Your task to perform on an android device: Show the shopping cart on costco. Search for "lg ultragear" on costco, select the first entry, add it to the cart, then select checkout. Image 0: 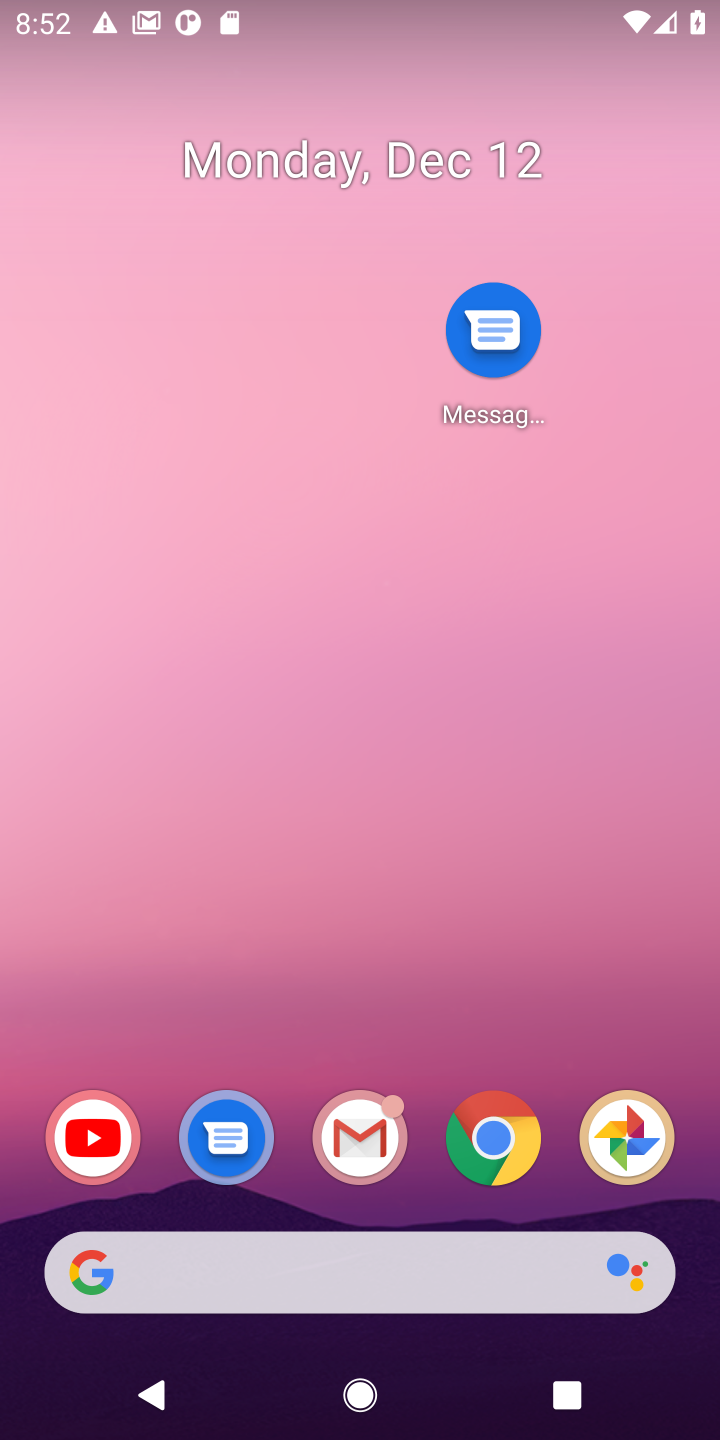
Step 0: drag from (361, 1255) to (396, 362)
Your task to perform on an android device: Show the shopping cart on costco. Search for "lg ultragear" on costco, select the first entry, add it to the cart, then select checkout. Image 1: 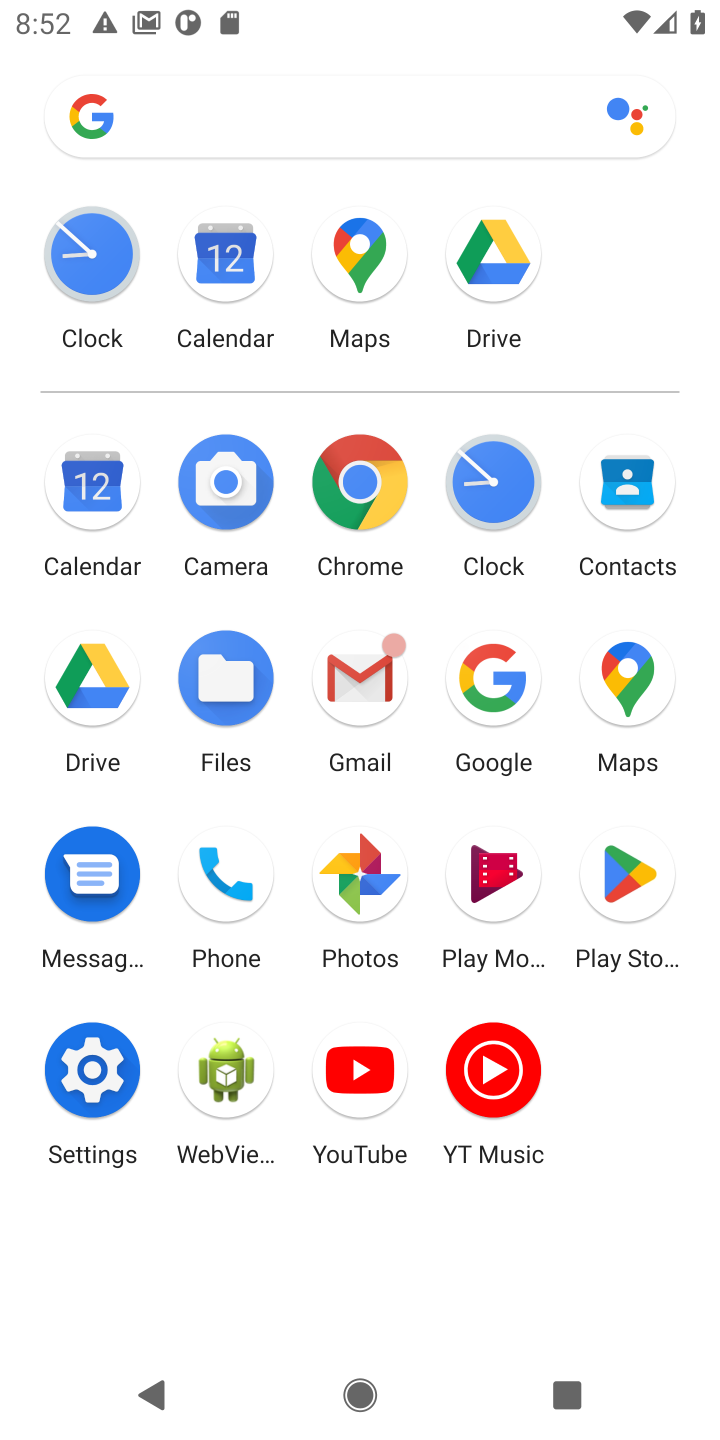
Step 1: click (487, 661)
Your task to perform on an android device: Show the shopping cart on costco. Search for "lg ultragear" on costco, select the first entry, add it to the cart, then select checkout. Image 2: 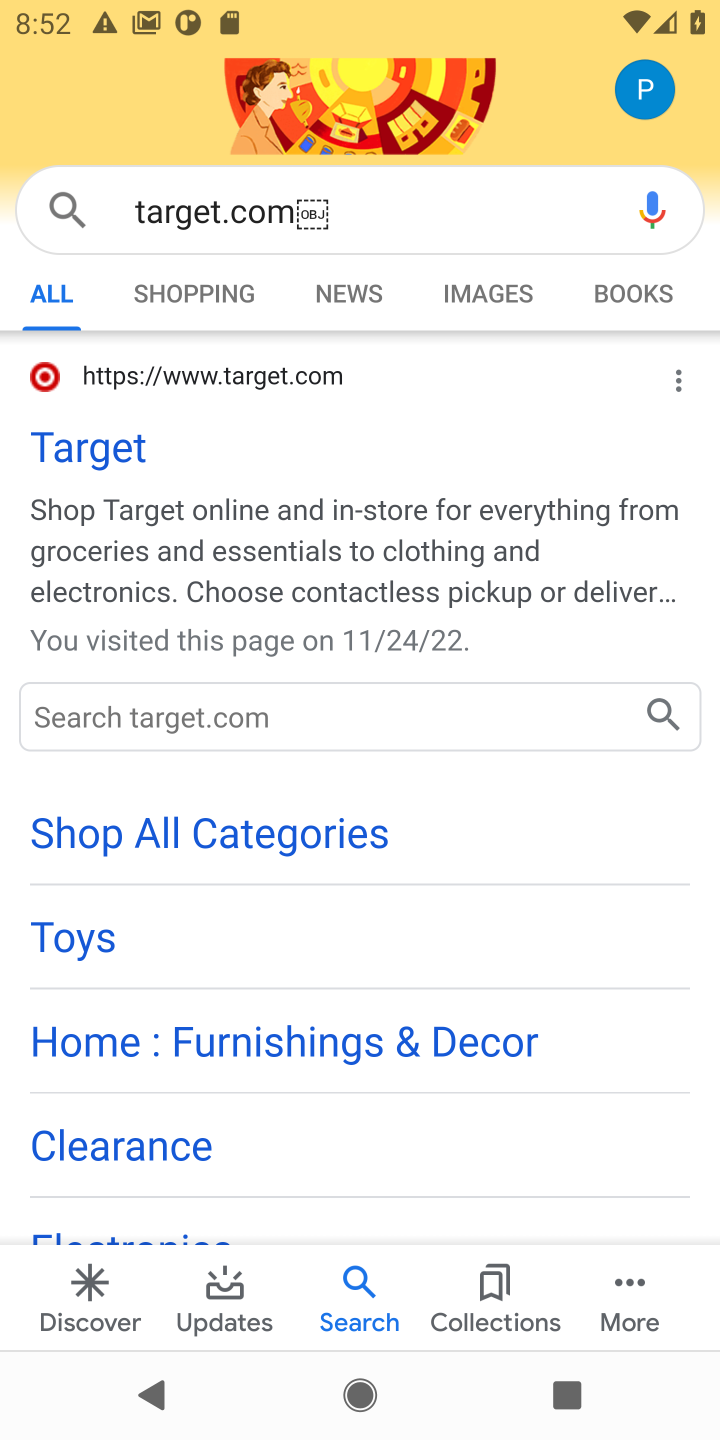
Step 2: click (182, 231)
Your task to perform on an android device: Show the shopping cart on costco. Search for "lg ultragear" on costco, select the first entry, add it to the cart, then select checkout. Image 3: 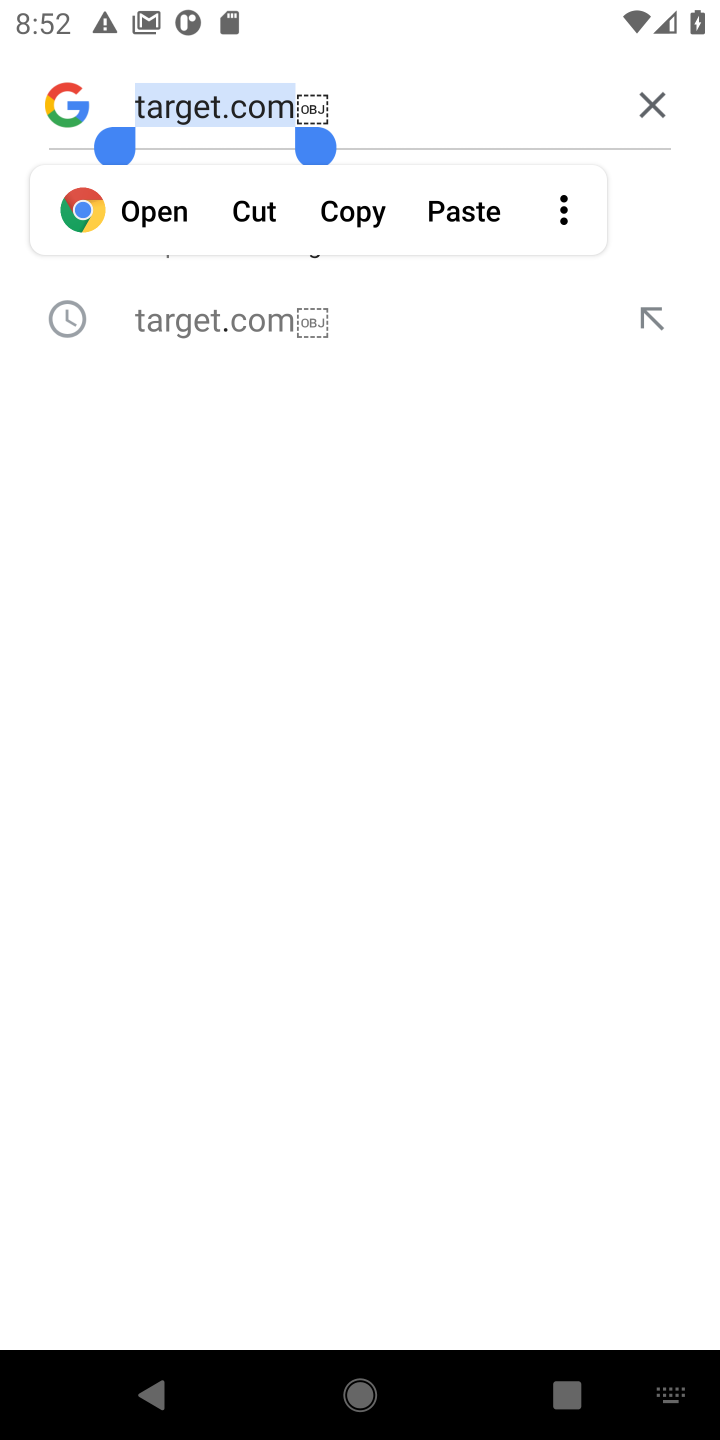
Step 3: click (650, 123)
Your task to perform on an android device: Show the shopping cart on costco. Search for "lg ultragear" on costco, select the first entry, add it to the cart, then select checkout. Image 4: 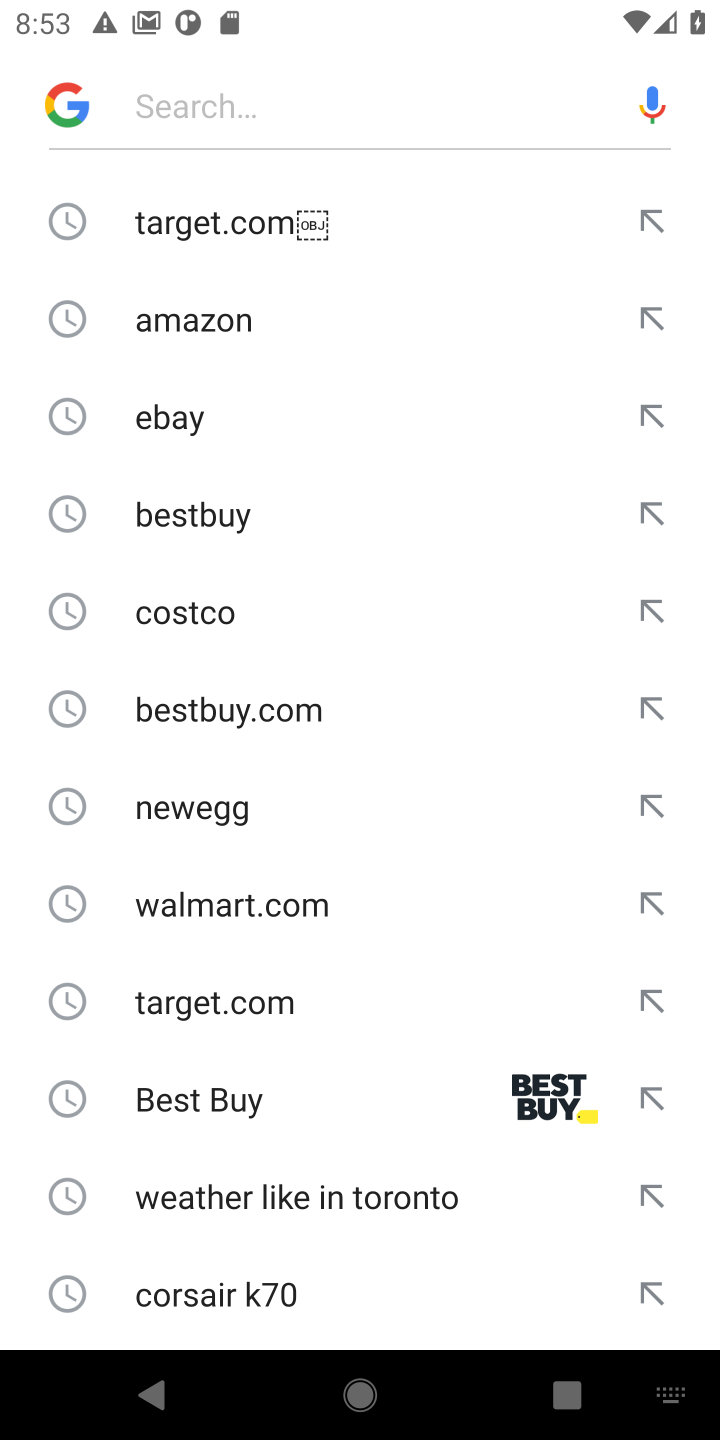
Step 4: click (226, 607)
Your task to perform on an android device: Show the shopping cart on costco. Search for "lg ultragear" on costco, select the first entry, add it to the cart, then select checkout. Image 5: 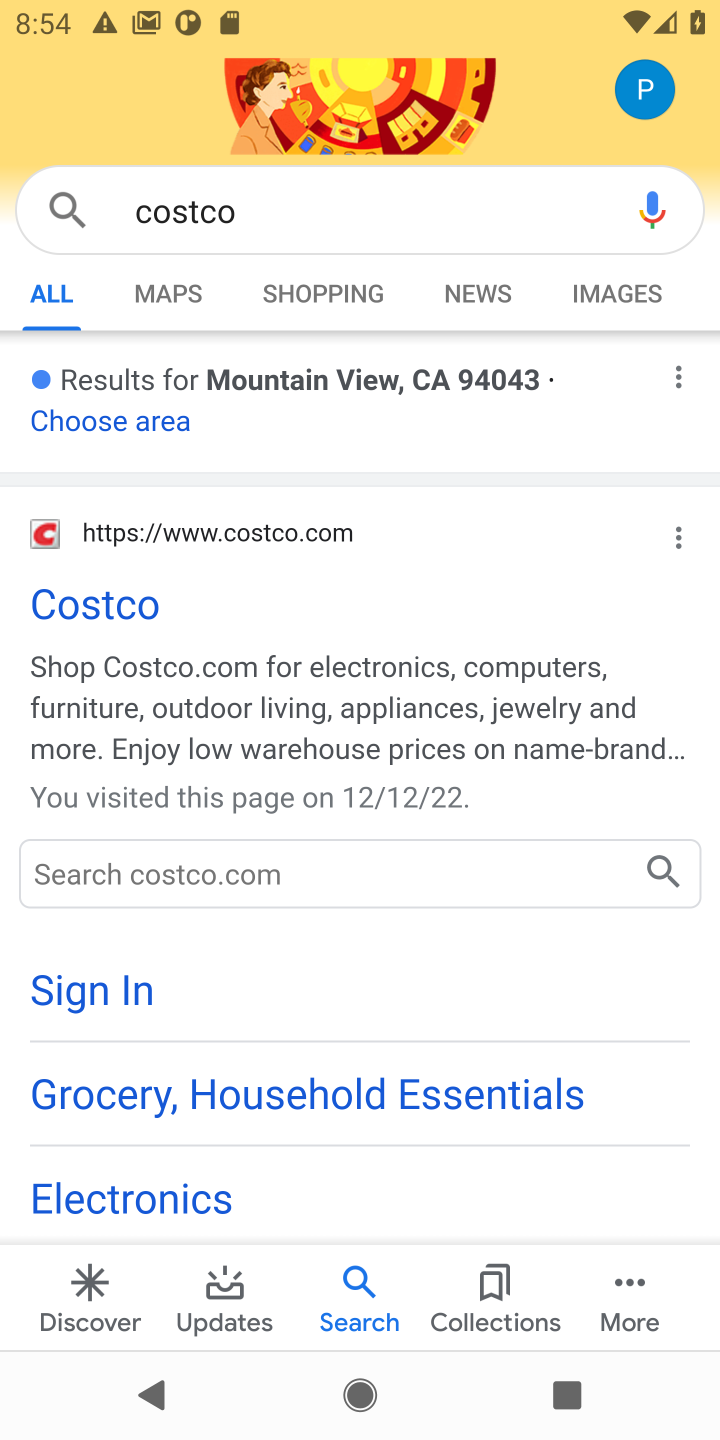
Step 5: click (114, 600)
Your task to perform on an android device: Show the shopping cart on costco. Search for "lg ultragear" on costco, select the first entry, add it to the cart, then select checkout. Image 6: 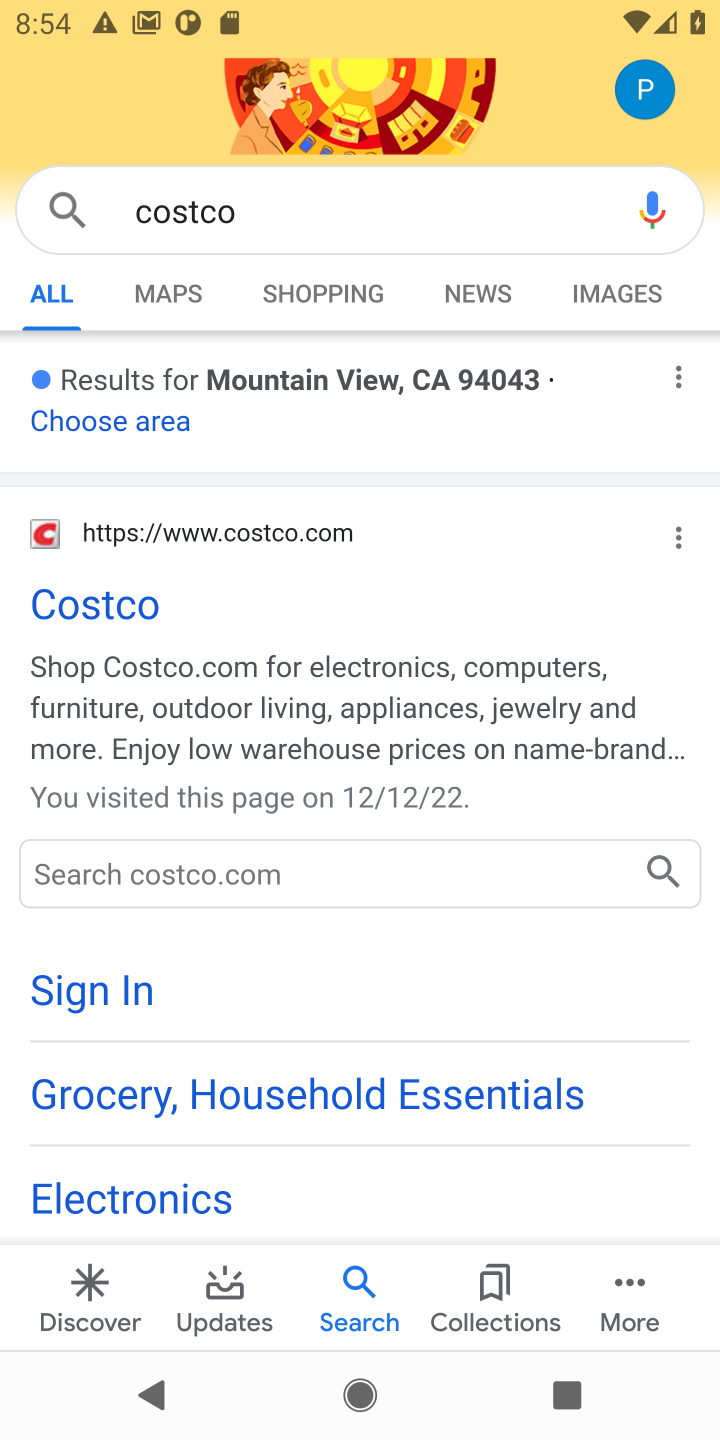
Step 6: click (77, 613)
Your task to perform on an android device: Show the shopping cart on costco. Search for "lg ultragear" on costco, select the first entry, add it to the cart, then select checkout. Image 7: 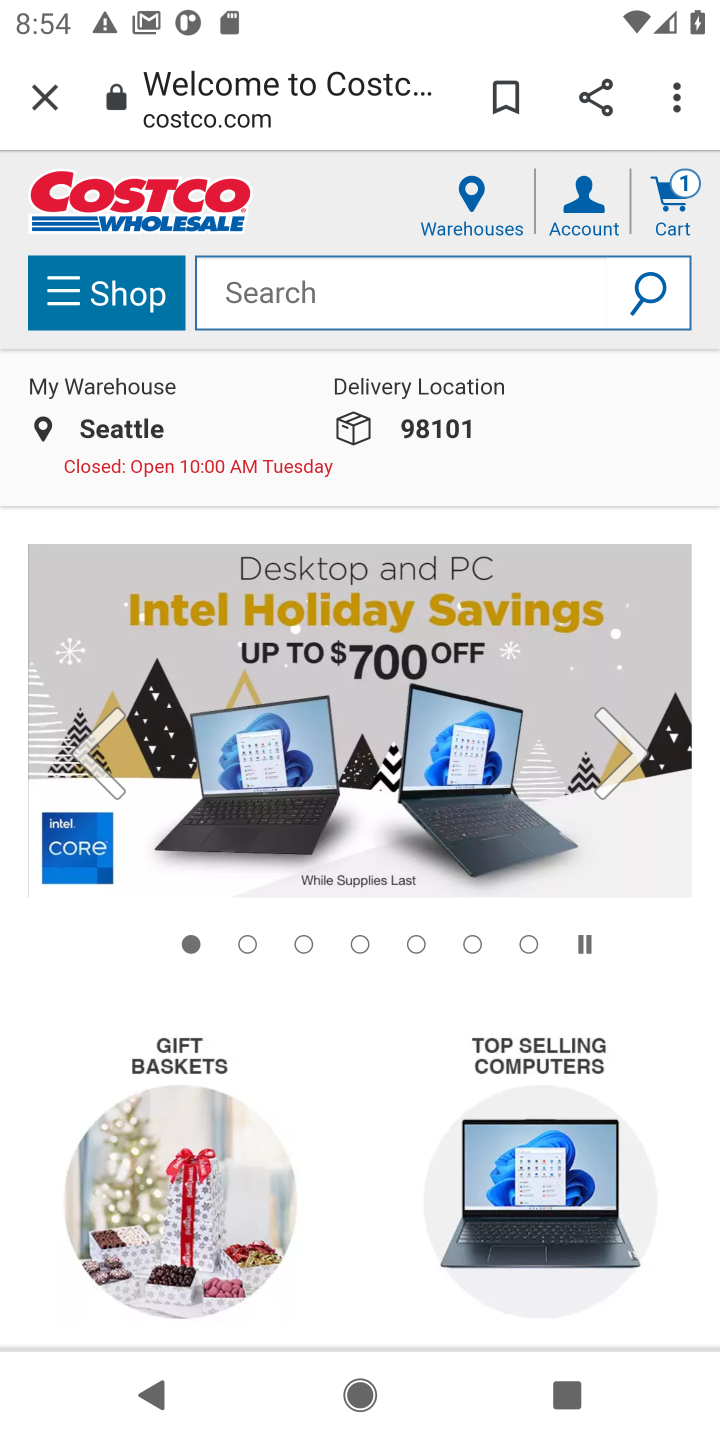
Step 7: click (399, 290)
Your task to perform on an android device: Show the shopping cart on costco. Search for "lg ultragear" on costco, select the first entry, add it to the cart, then select checkout. Image 8: 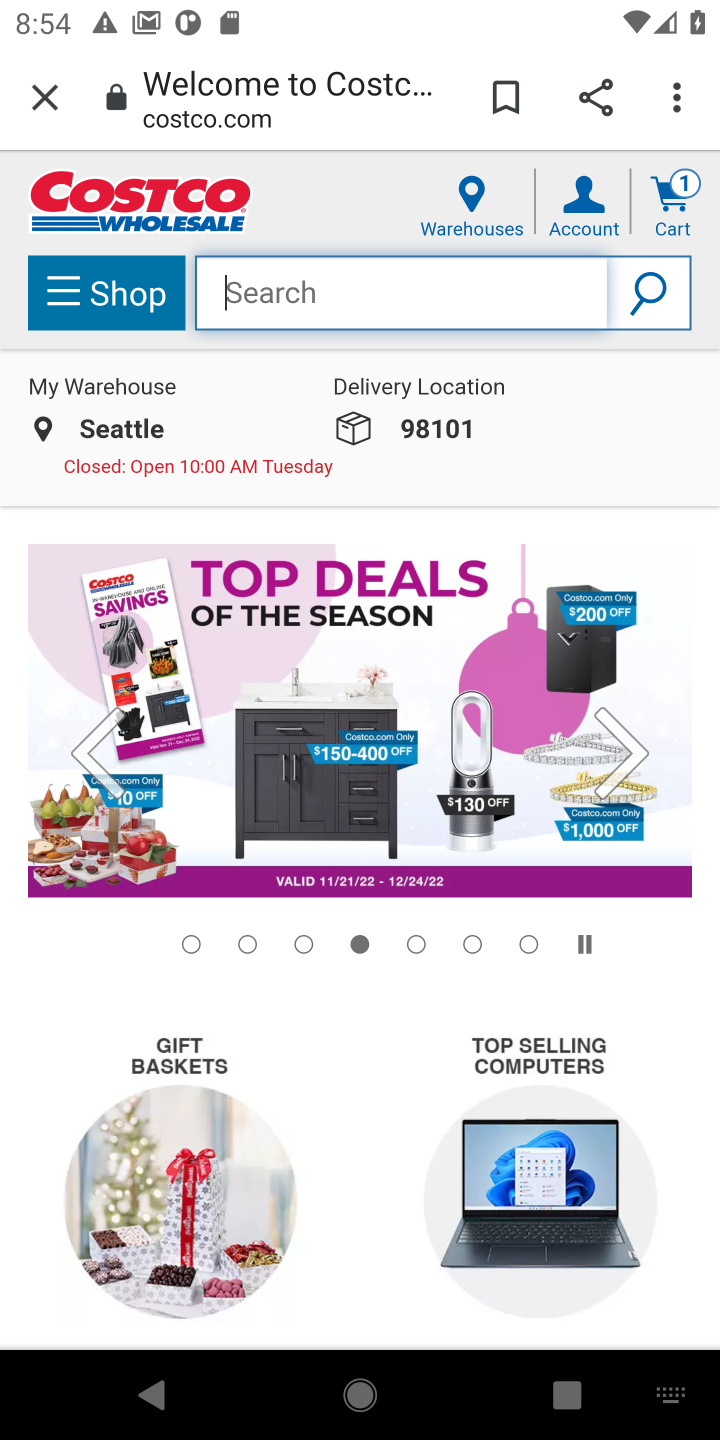
Step 8: type "lg ultragear"
Your task to perform on an android device: Show the shopping cart on costco. Search for "lg ultragear" on costco, select the first entry, add it to the cart, then select checkout. Image 9: 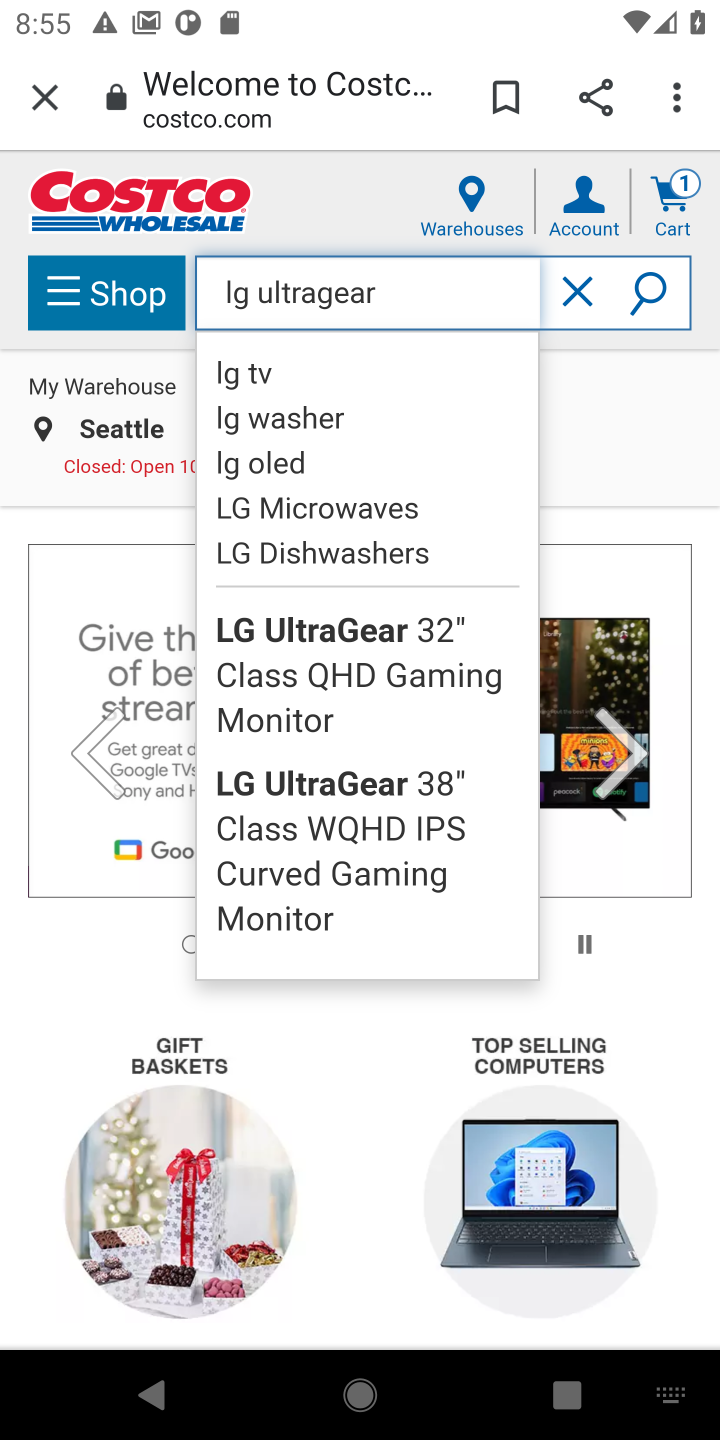
Step 9: click (642, 298)
Your task to perform on an android device: Show the shopping cart on costco. Search for "lg ultragear" on costco, select the first entry, add it to the cart, then select checkout. Image 10: 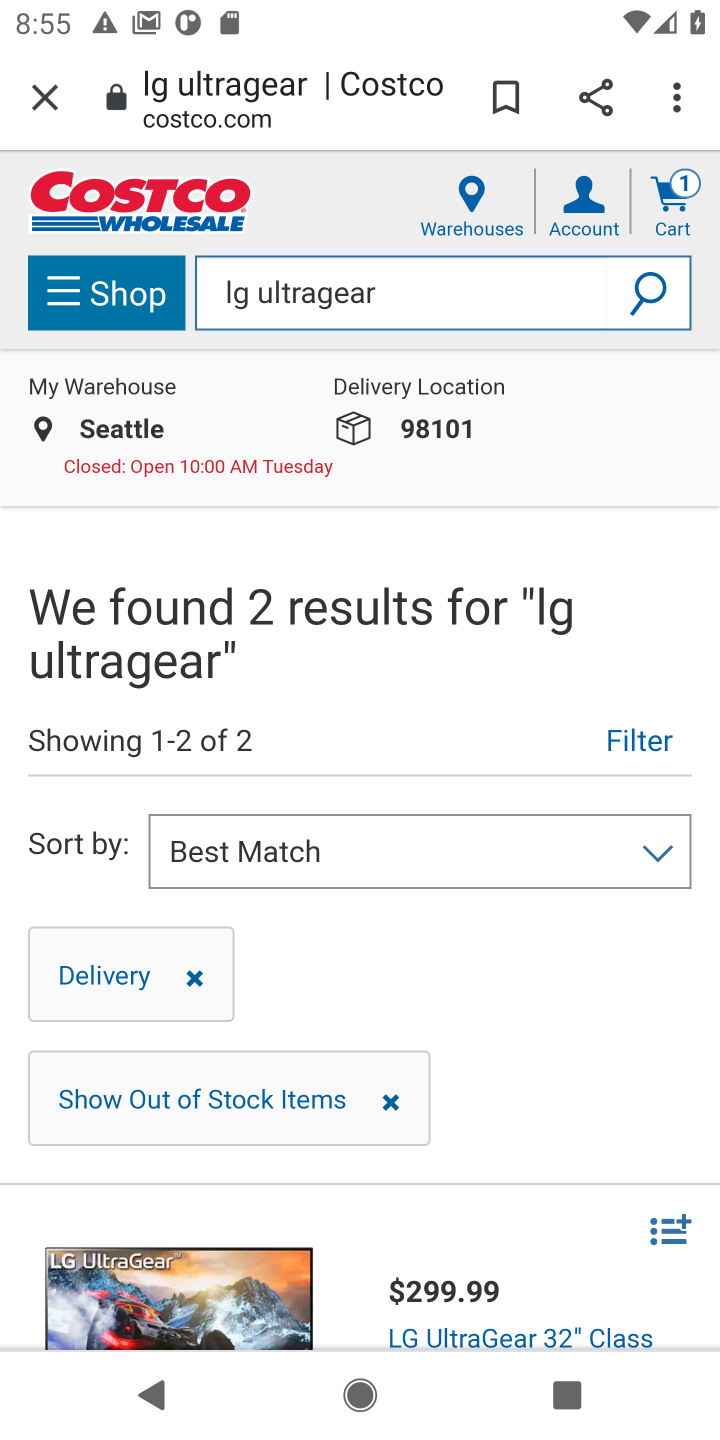
Step 10: drag from (429, 1100) to (381, 452)
Your task to perform on an android device: Show the shopping cart on costco. Search for "lg ultragear" on costco, select the first entry, add it to the cart, then select checkout. Image 11: 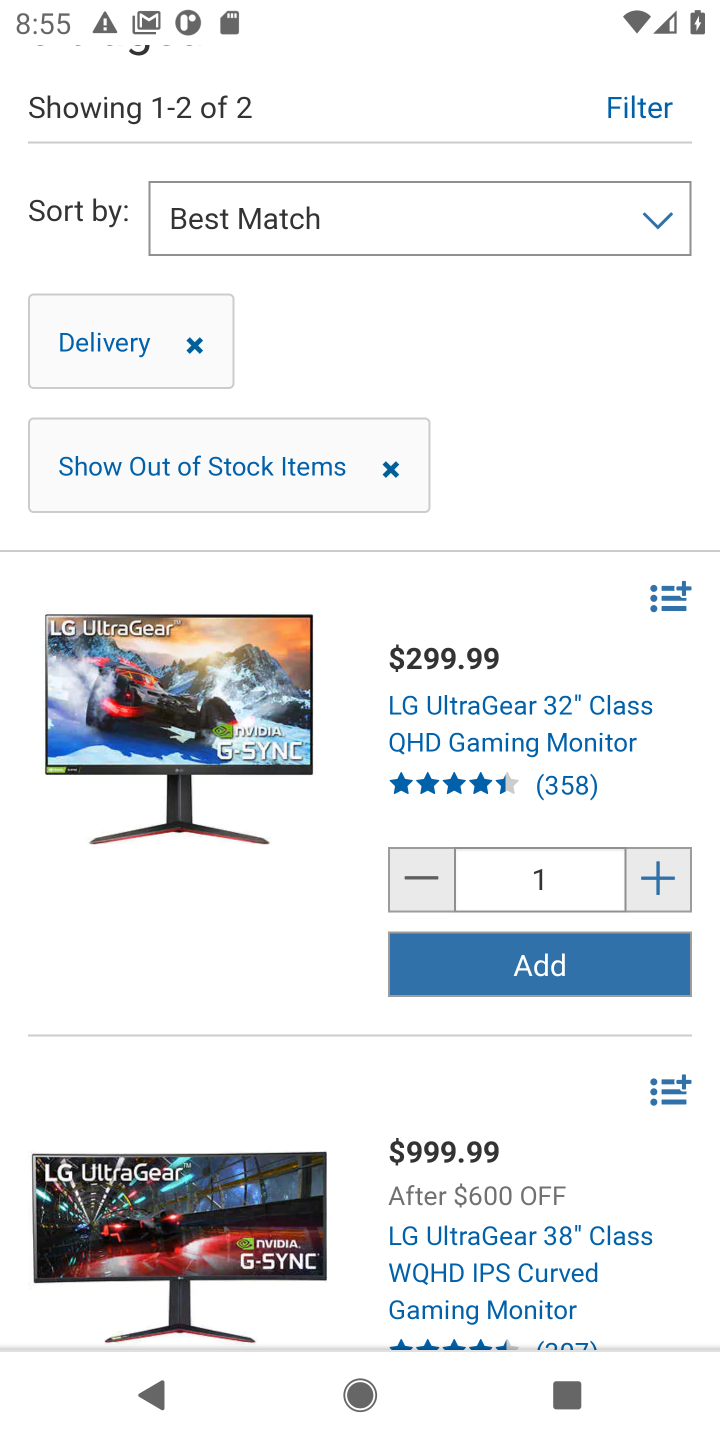
Step 11: click (517, 958)
Your task to perform on an android device: Show the shopping cart on costco. Search for "lg ultragear" on costco, select the first entry, add it to the cart, then select checkout. Image 12: 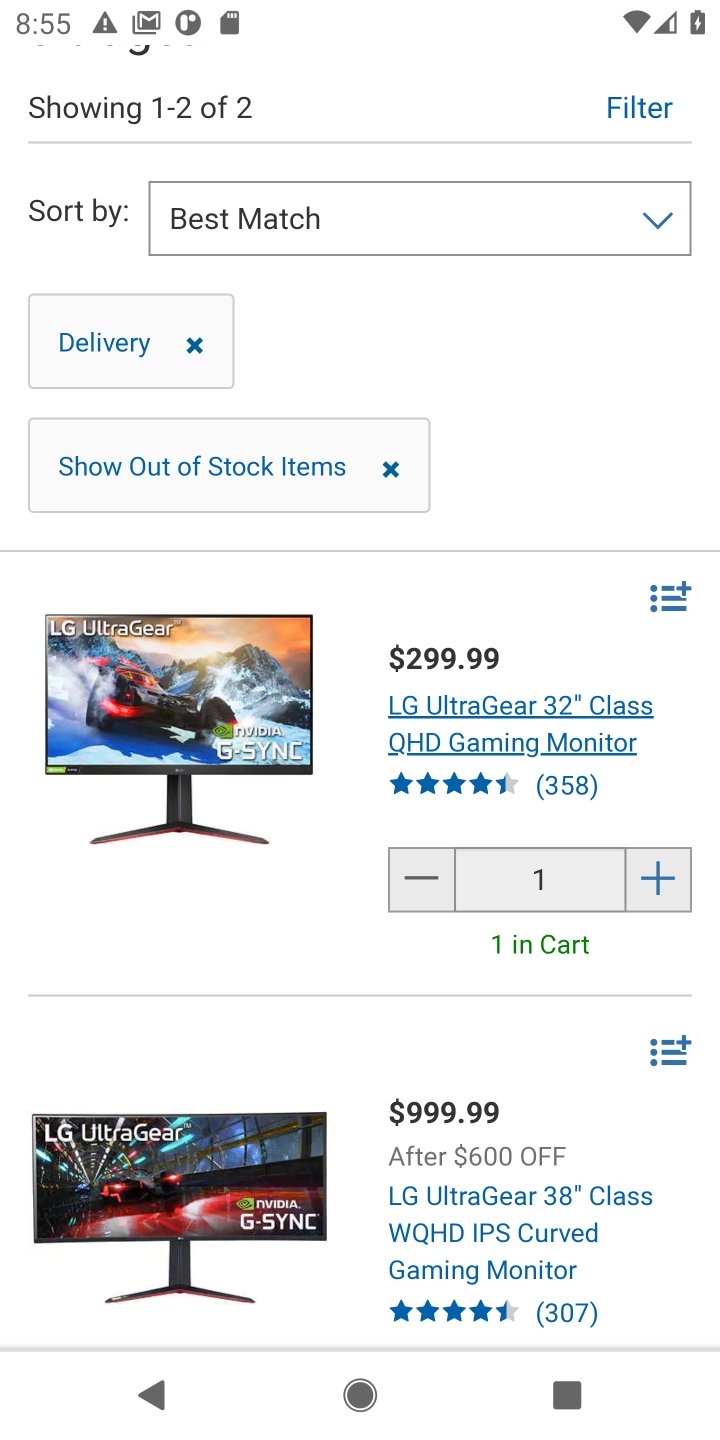
Step 12: drag from (498, 397) to (530, 1106)
Your task to perform on an android device: Show the shopping cart on costco. Search for "lg ultragear" on costco, select the first entry, add it to the cart, then select checkout. Image 13: 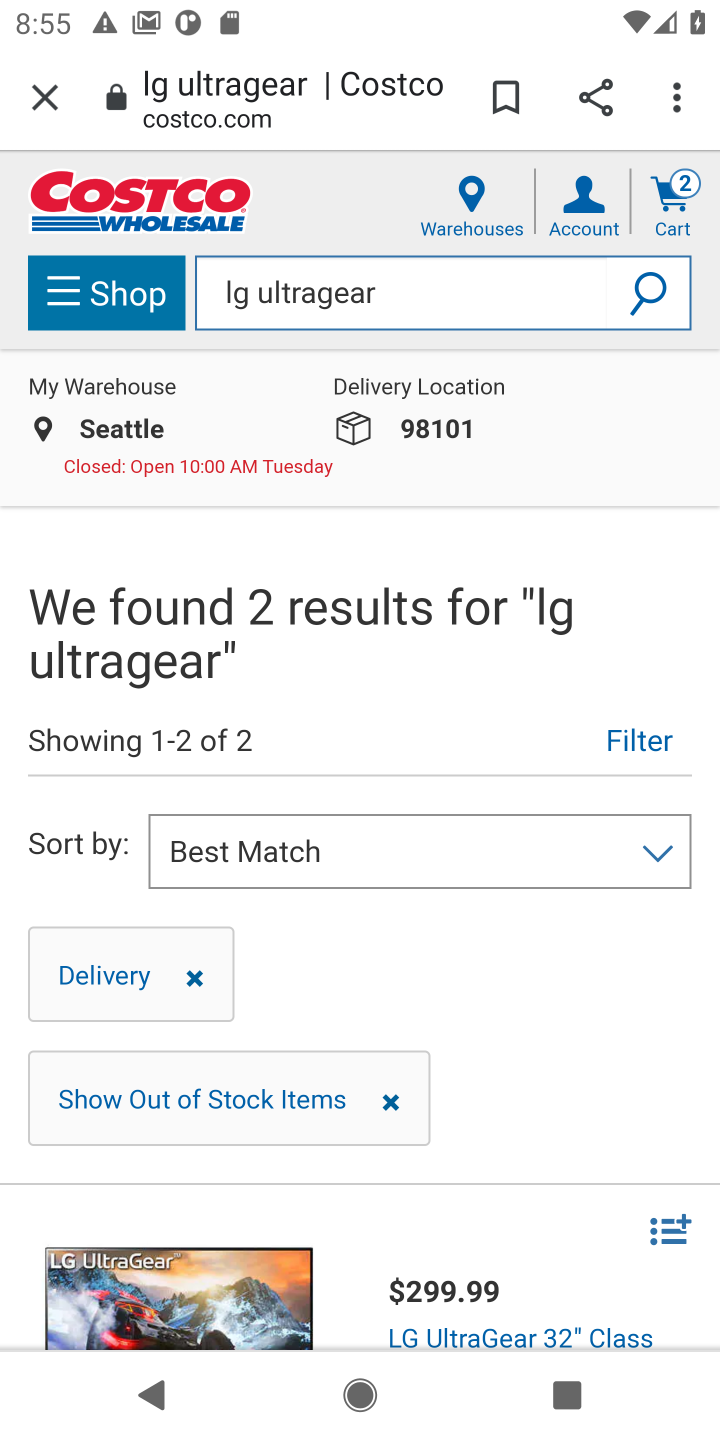
Step 13: click (659, 207)
Your task to perform on an android device: Show the shopping cart on costco. Search for "lg ultragear" on costco, select the first entry, add it to the cart, then select checkout. Image 14: 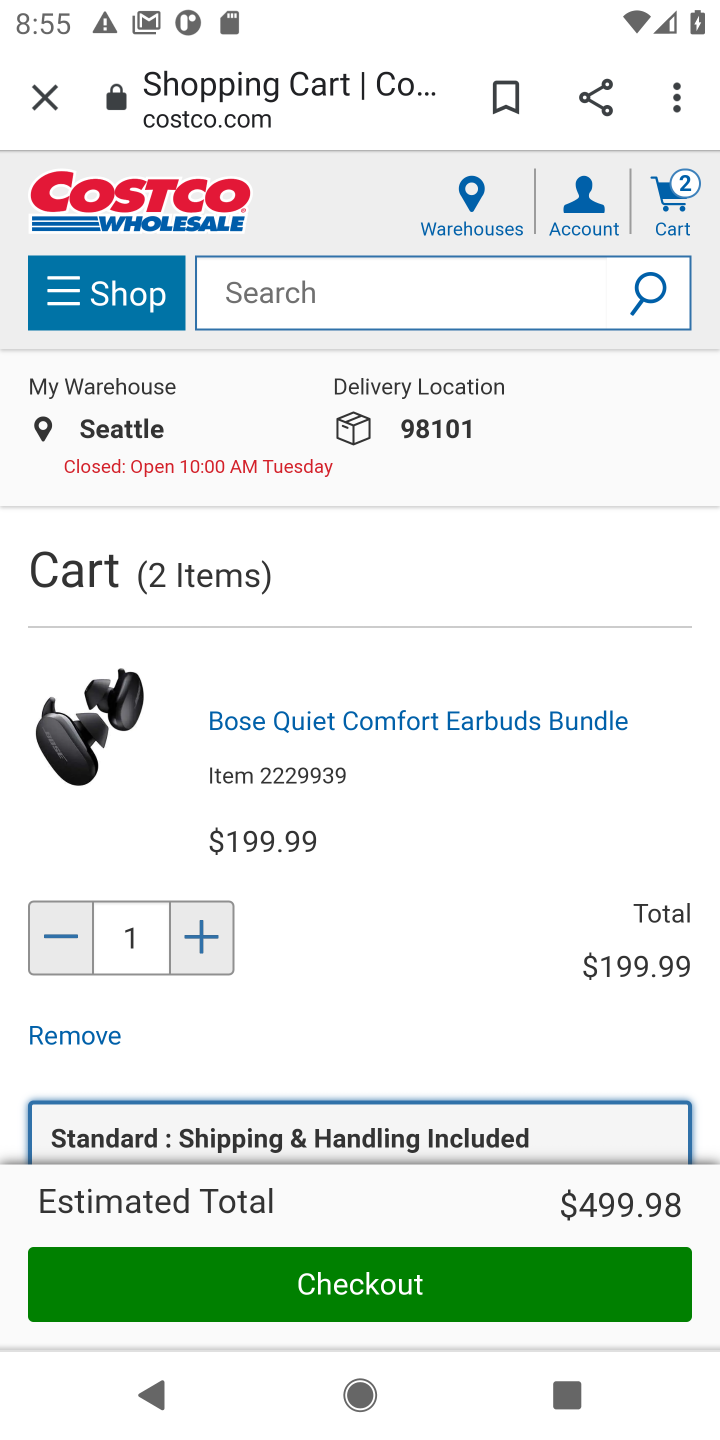
Step 14: click (416, 1299)
Your task to perform on an android device: Show the shopping cart on costco. Search for "lg ultragear" on costco, select the first entry, add it to the cart, then select checkout. Image 15: 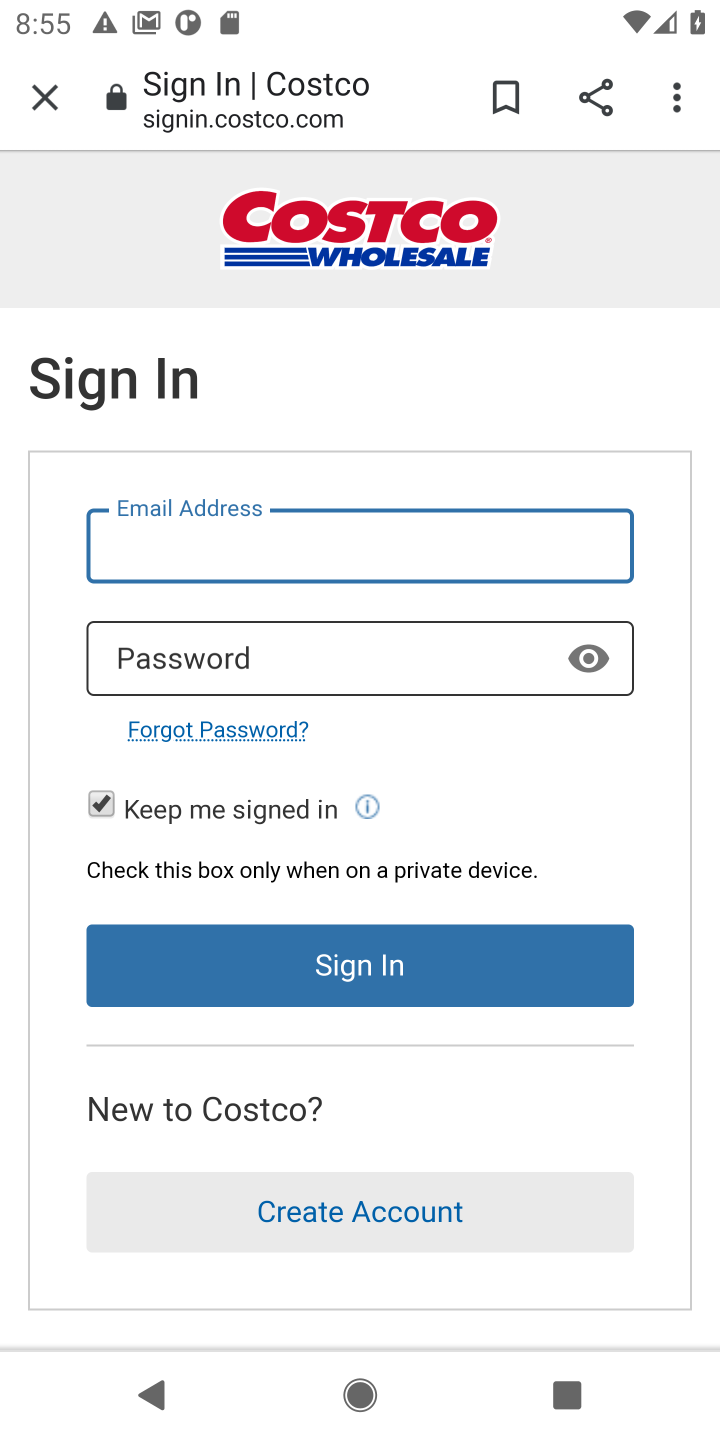
Step 15: task complete